Your task to perform on an android device: What is the news today? Image 0: 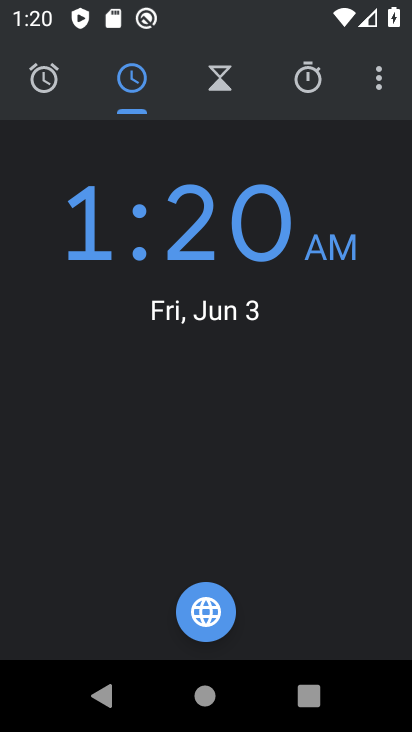
Step 0: press home button
Your task to perform on an android device: What is the news today? Image 1: 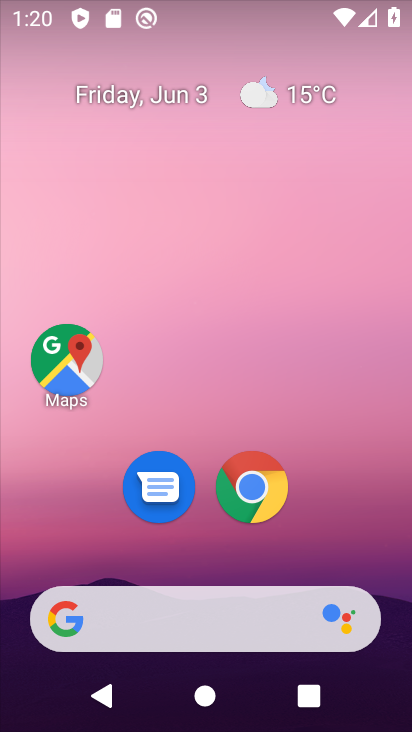
Step 1: click (219, 640)
Your task to perform on an android device: What is the news today? Image 2: 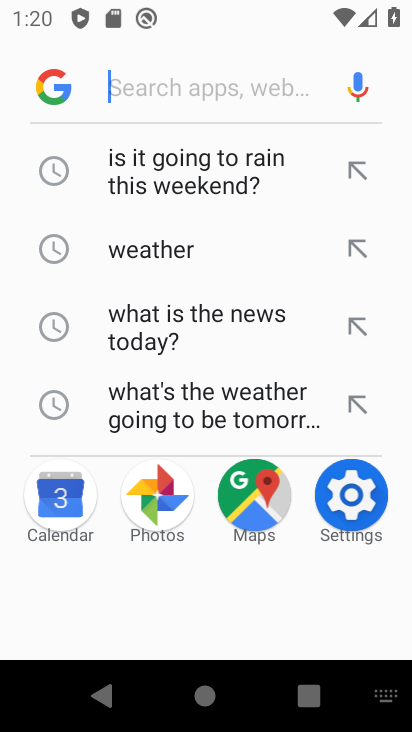
Step 2: type "news today "
Your task to perform on an android device: What is the news today? Image 3: 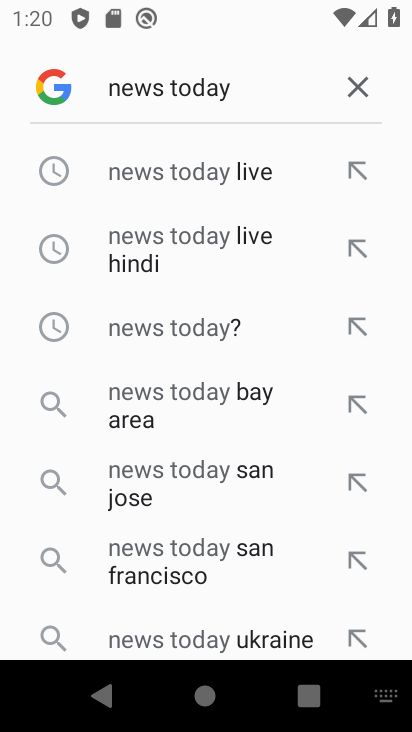
Step 3: click (198, 331)
Your task to perform on an android device: What is the news today? Image 4: 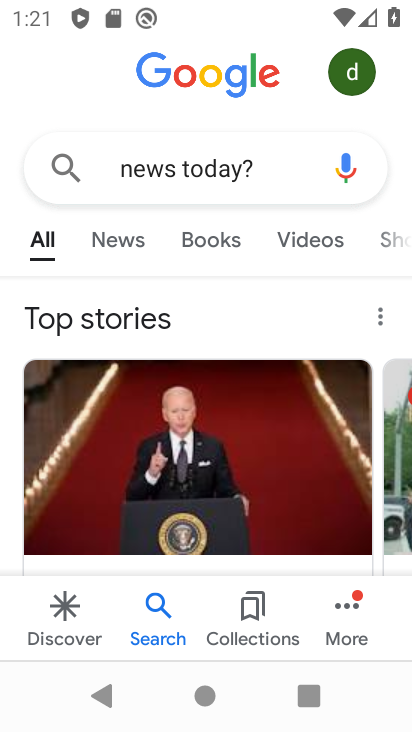
Step 4: task complete